Your task to perform on an android device: Go to sound settings Image 0: 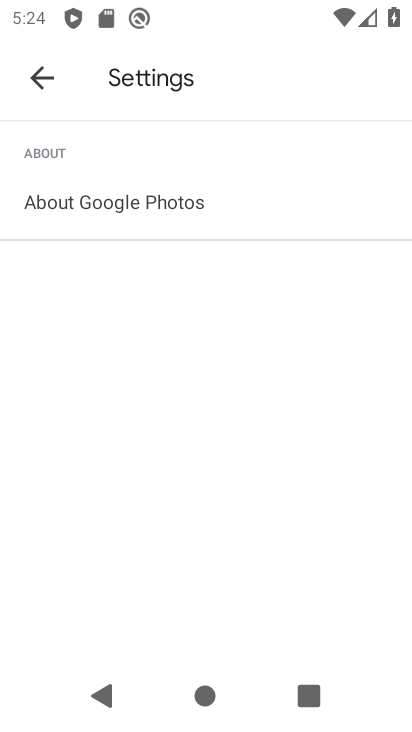
Step 0: press home button
Your task to perform on an android device: Go to sound settings Image 1: 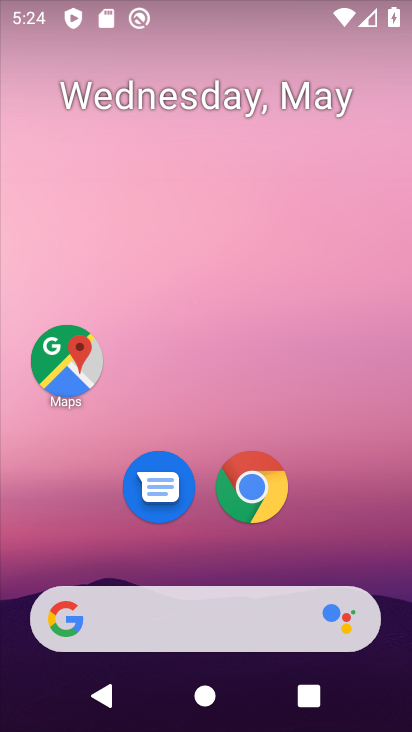
Step 1: drag from (151, 559) to (153, 201)
Your task to perform on an android device: Go to sound settings Image 2: 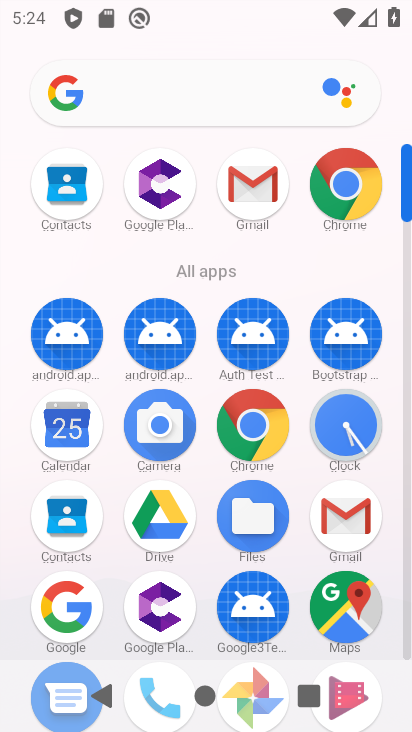
Step 2: drag from (295, 595) to (281, 264)
Your task to perform on an android device: Go to sound settings Image 3: 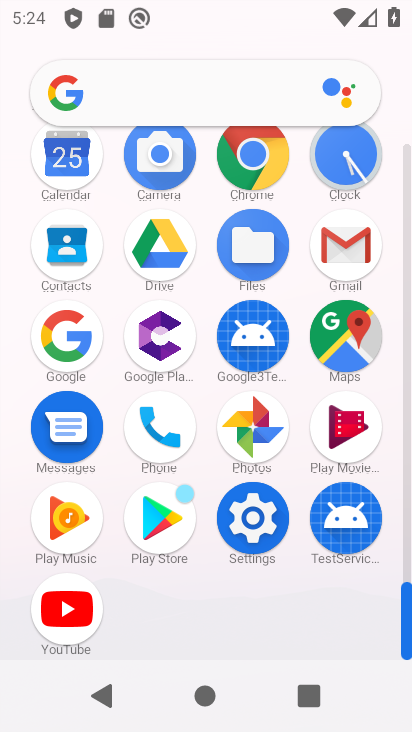
Step 3: click (244, 517)
Your task to perform on an android device: Go to sound settings Image 4: 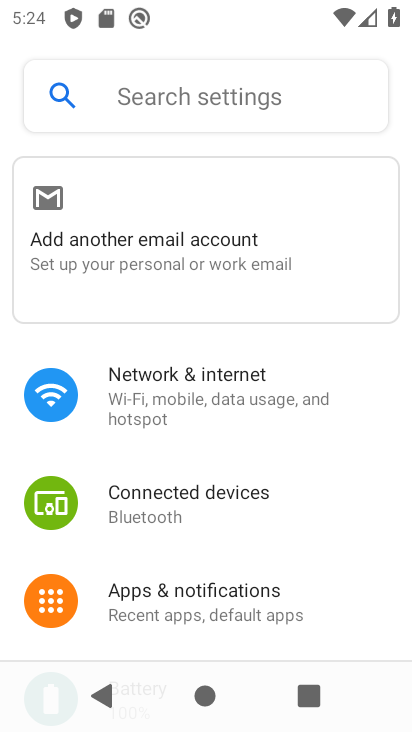
Step 4: drag from (197, 615) to (98, 250)
Your task to perform on an android device: Go to sound settings Image 5: 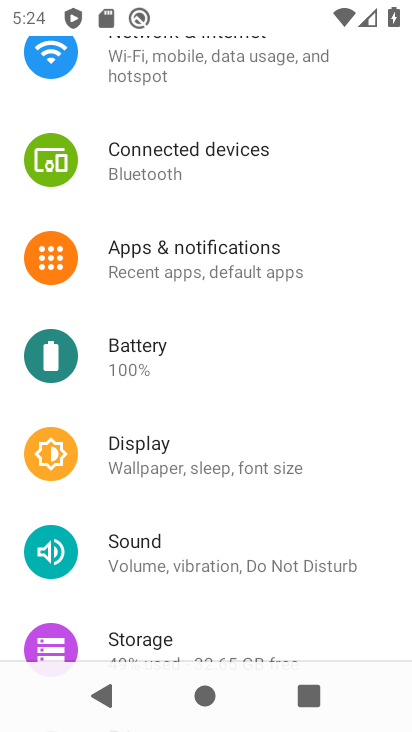
Step 5: click (172, 559)
Your task to perform on an android device: Go to sound settings Image 6: 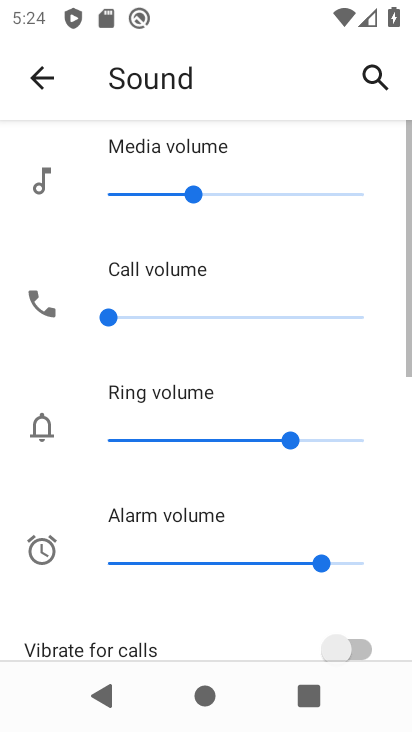
Step 6: task complete